Your task to perform on an android device: Open Google Maps Image 0: 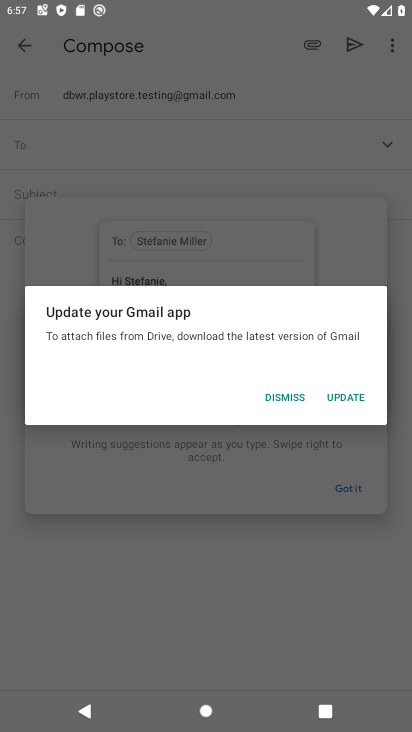
Step 0: press home button
Your task to perform on an android device: Open Google Maps Image 1: 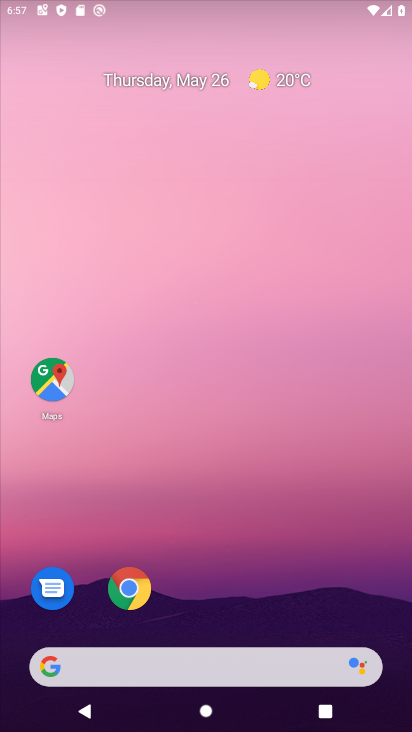
Step 1: drag from (376, 641) to (251, 17)
Your task to perform on an android device: Open Google Maps Image 2: 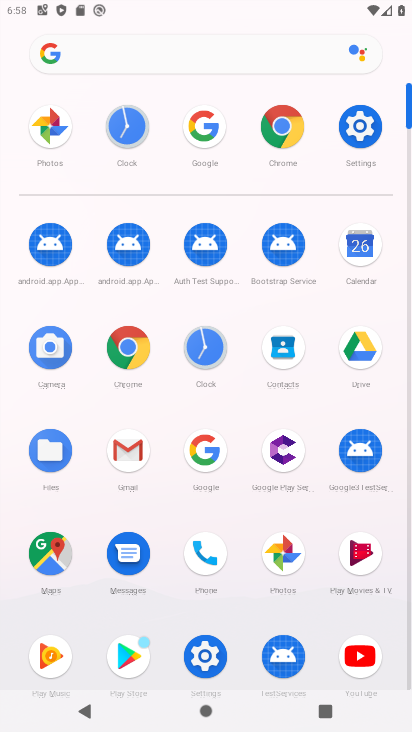
Step 2: click (32, 564)
Your task to perform on an android device: Open Google Maps Image 3: 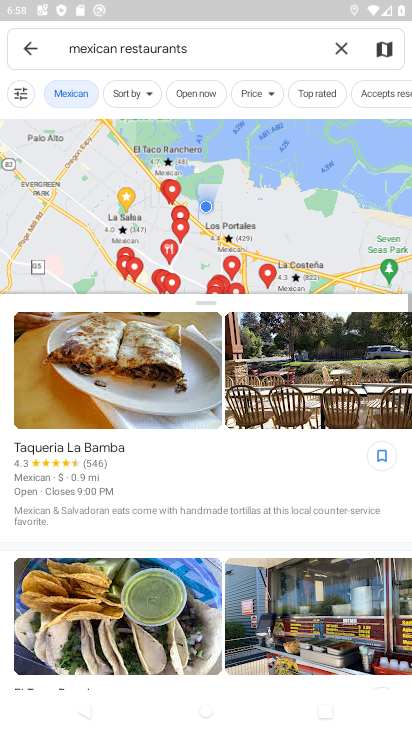
Step 3: click (340, 47)
Your task to perform on an android device: Open Google Maps Image 4: 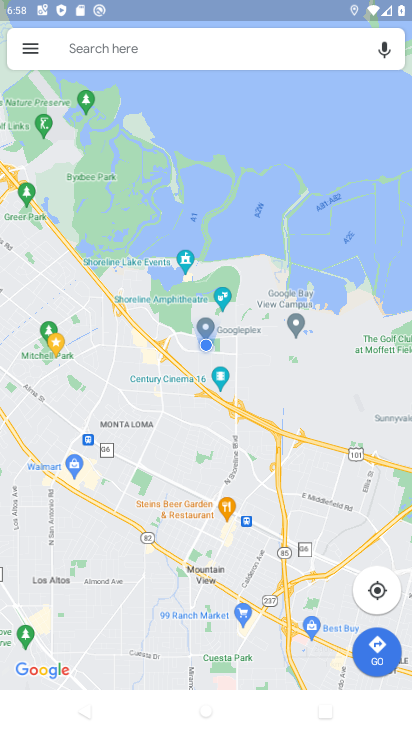
Step 4: task complete